Your task to perform on an android device: turn off location Image 0: 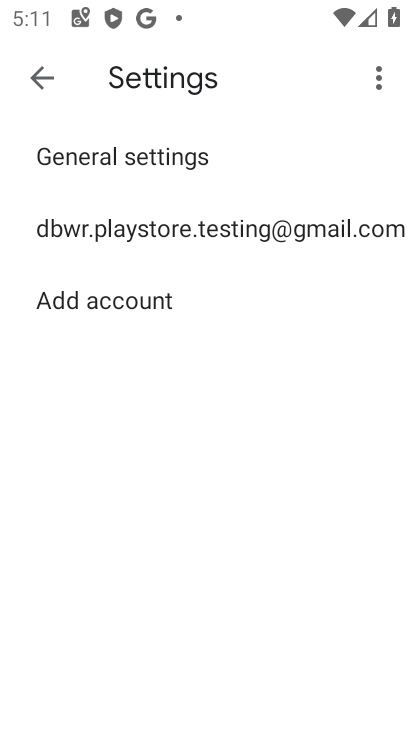
Step 0: press back button
Your task to perform on an android device: turn off location Image 1: 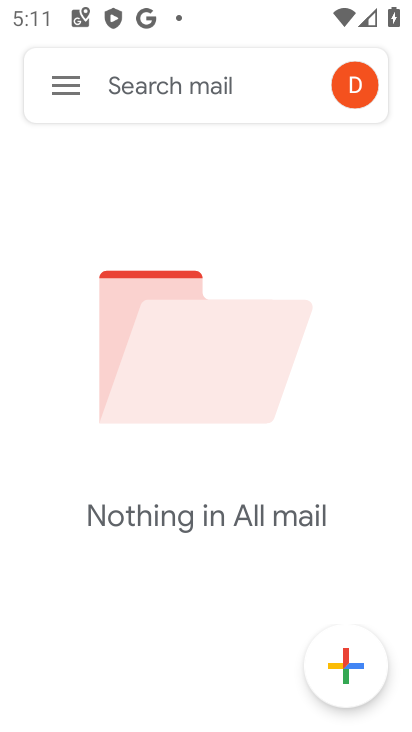
Step 1: press home button
Your task to perform on an android device: turn off location Image 2: 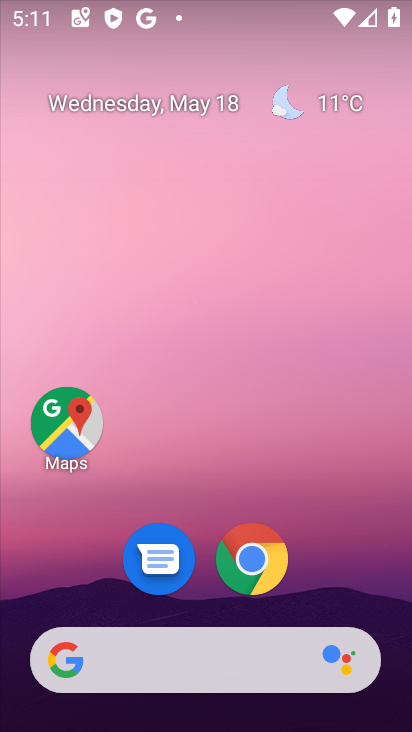
Step 2: drag from (195, 539) to (261, 81)
Your task to perform on an android device: turn off location Image 3: 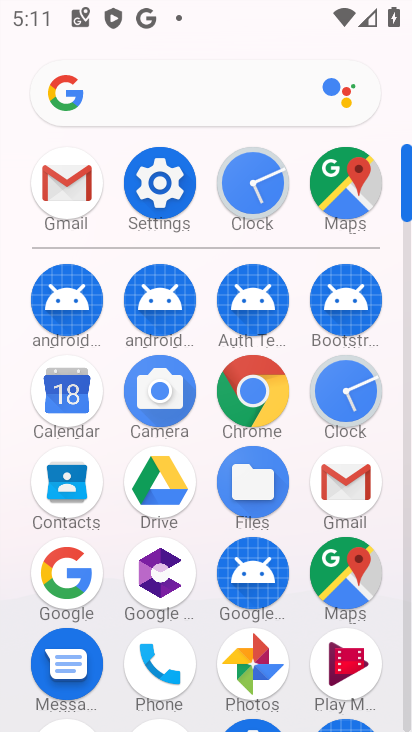
Step 3: click (151, 185)
Your task to perform on an android device: turn off location Image 4: 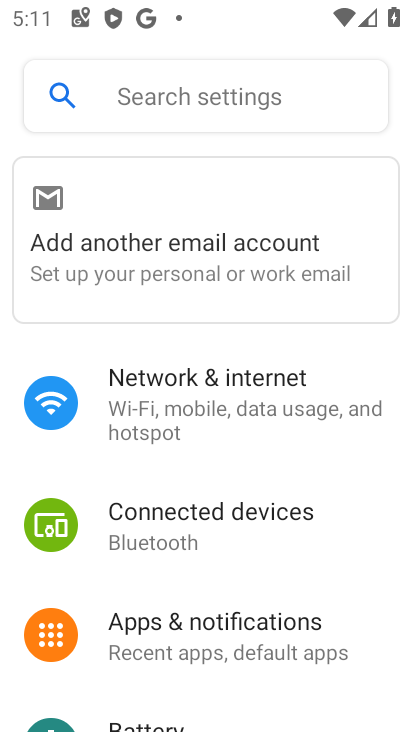
Step 4: drag from (154, 648) to (242, 127)
Your task to perform on an android device: turn off location Image 5: 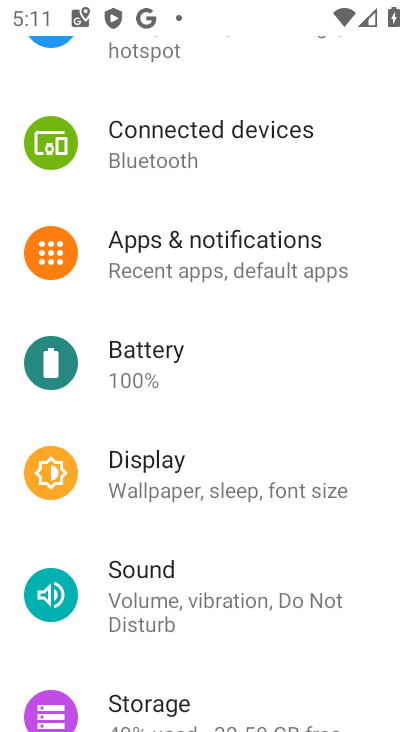
Step 5: drag from (180, 630) to (261, 118)
Your task to perform on an android device: turn off location Image 6: 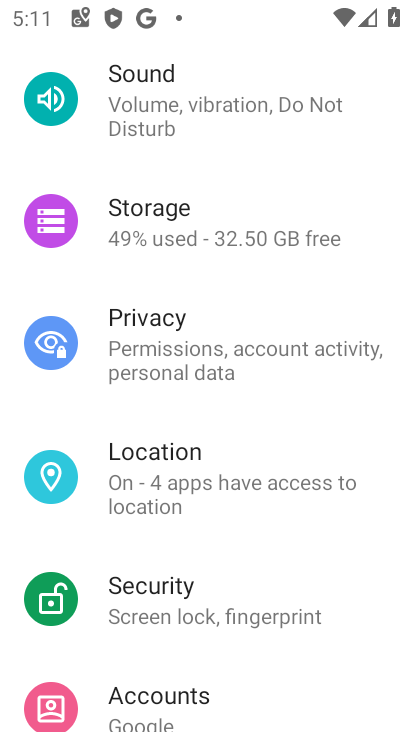
Step 6: click (163, 469)
Your task to perform on an android device: turn off location Image 7: 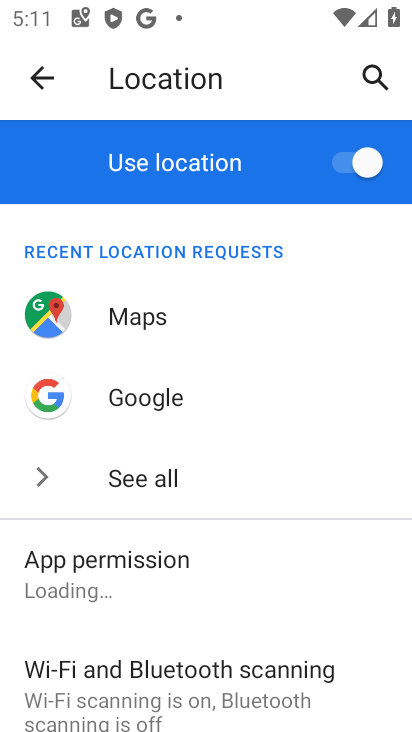
Step 7: click (354, 162)
Your task to perform on an android device: turn off location Image 8: 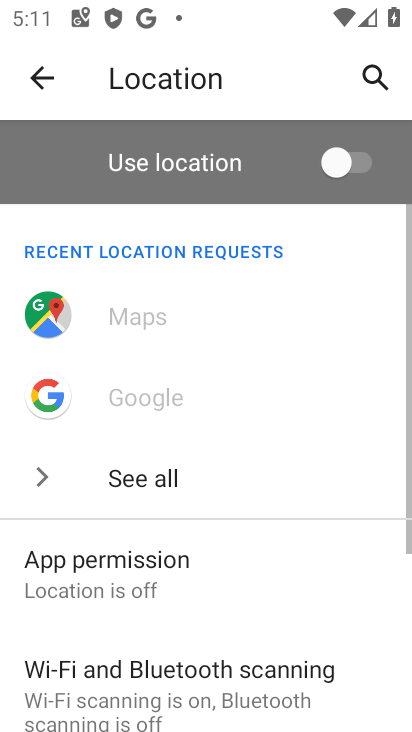
Step 8: task complete